Your task to perform on an android device: change the clock display to analog Image 0: 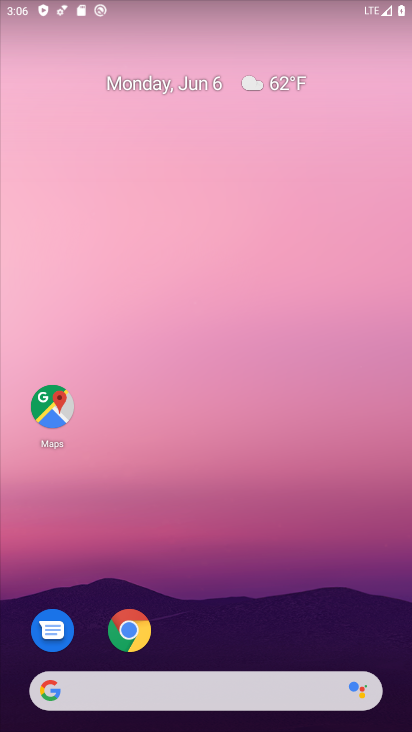
Step 0: drag from (293, 550) to (344, 4)
Your task to perform on an android device: change the clock display to analog Image 1: 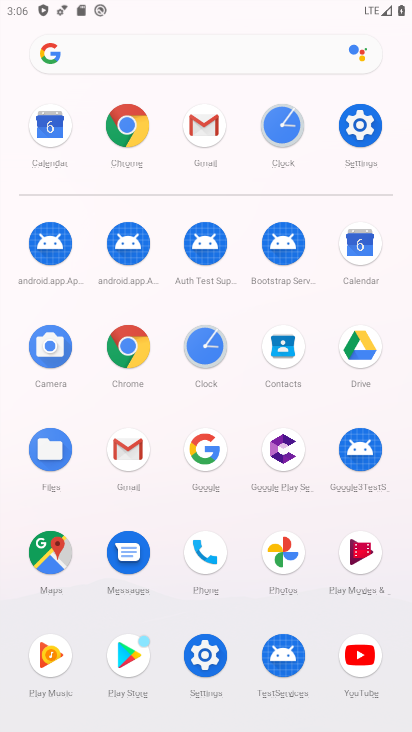
Step 1: click (204, 335)
Your task to perform on an android device: change the clock display to analog Image 2: 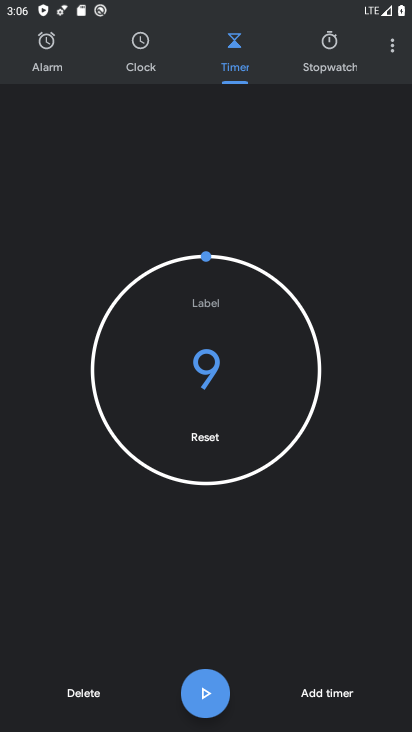
Step 2: click (384, 41)
Your task to perform on an android device: change the clock display to analog Image 3: 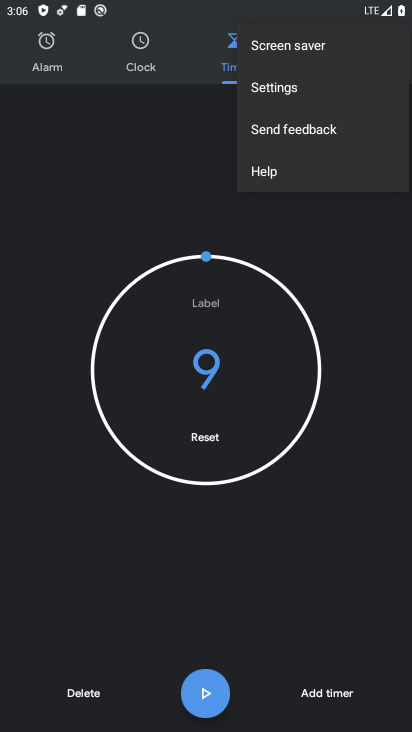
Step 3: click (277, 88)
Your task to perform on an android device: change the clock display to analog Image 4: 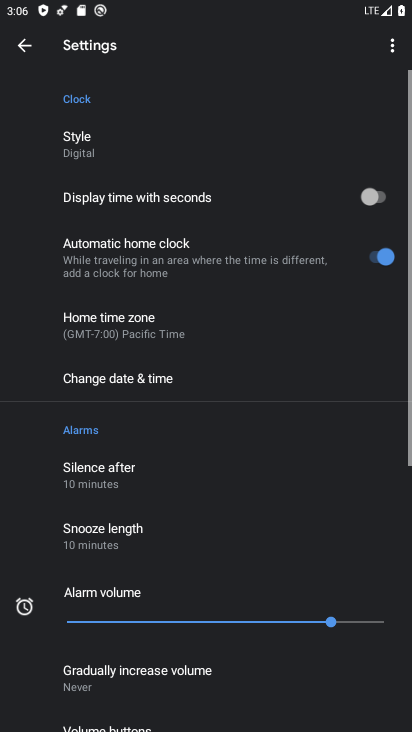
Step 4: click (135, 154)
Your task to perform on an android device: change the clock display to analog Image 5: 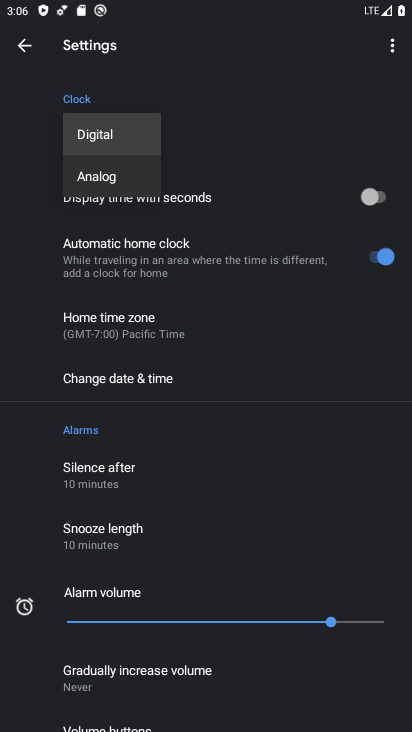
Step 5: click (124, 174)
Your task to perform on an android device: change the clock display to analog Image 6: 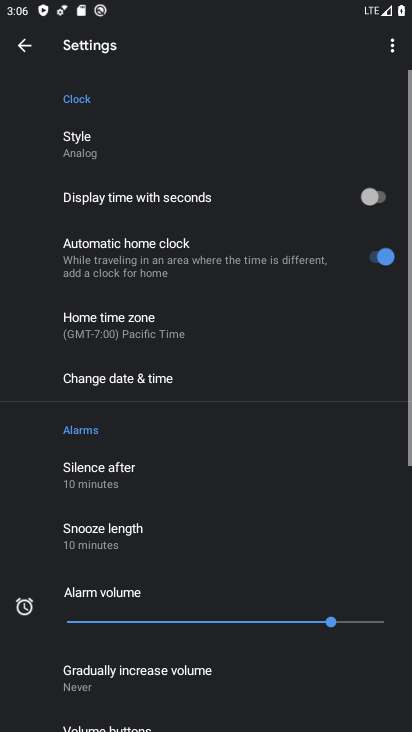
Step 6: task complete